Your task to perform on an android device: toggle notifications settings in the gmail app Image 0: 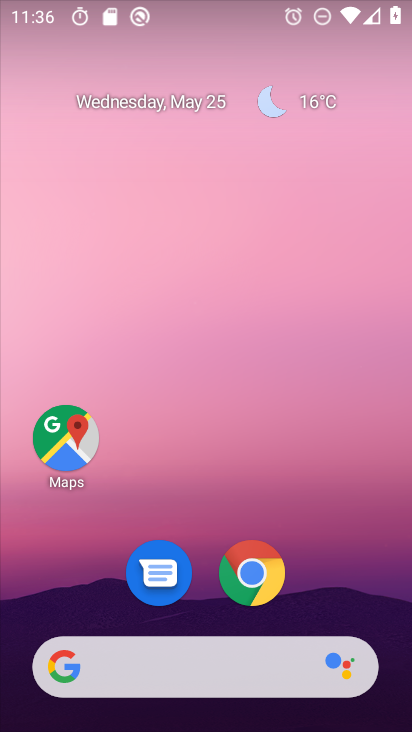
Step 0: drag from (342, 598) to (341, 6)
Your task to perform on an android device: toggle notifications settings in the gmail app Image 1: 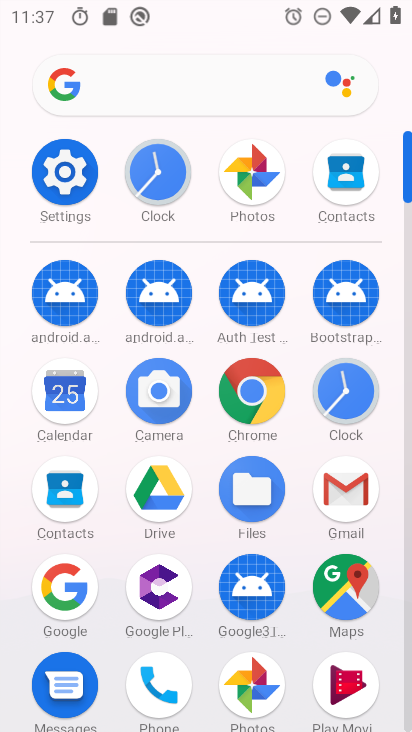
Step 1: click (342, 493)
Your task to perform on an android device: toggle notifications settings in the gmail app Image 2: 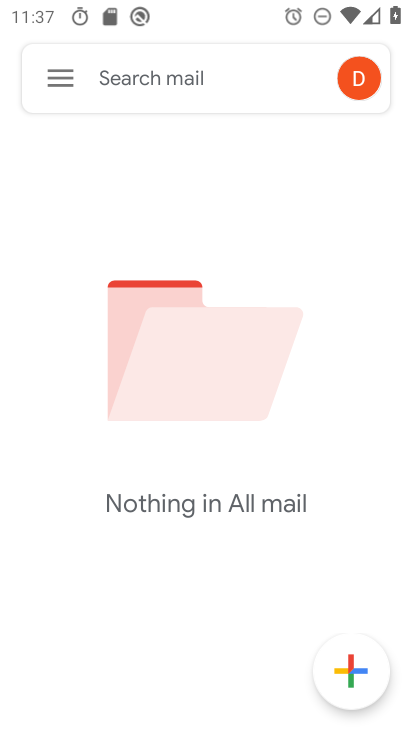
Step 2: click (56, 78)
Your task to perform on an android device: toggle notifications settings in the gmail app Image 3: 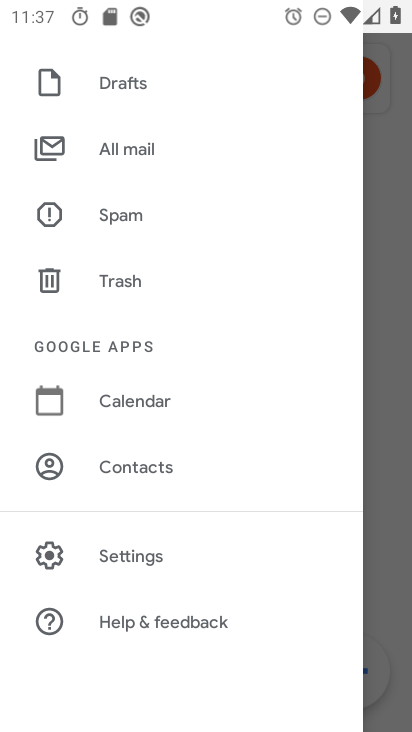
Step 3: click (122, 557)
Your task to perform on an android device: toggle notifications settings in the gmail app Image 4: 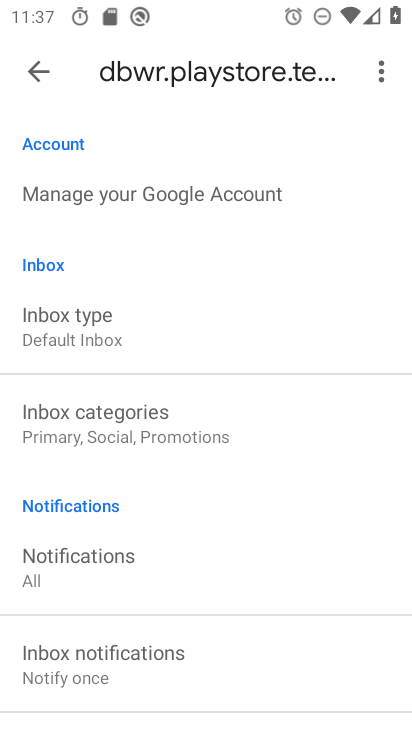
Step 4: click (27, 69)
Your task to perform on an android device: toggle notifications settings in the gmail app Image 5: 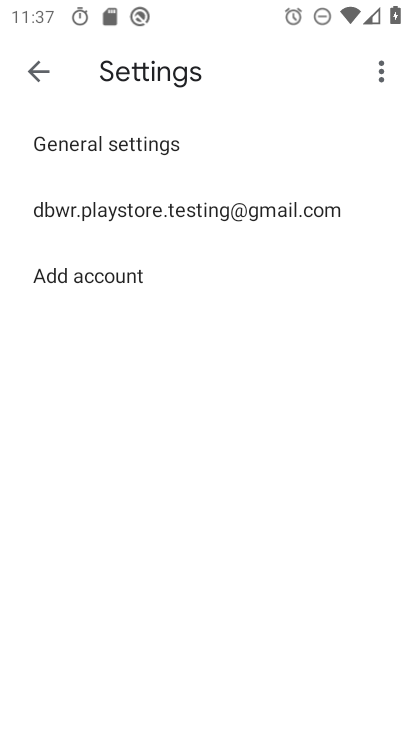
Step 5: click (106, 149)
Your task to perform on an android device: toggle notifications settings in the gmail app Image 6: 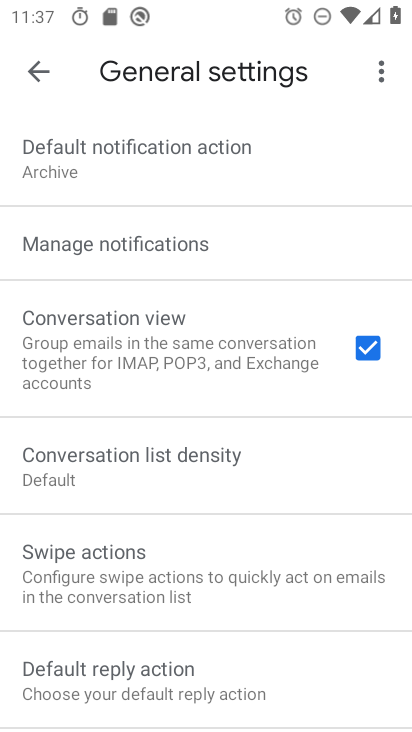
Step 6: click (84, 245)
Your task to perform on an android device: toggle notifications settings in the gmail app Image 7: 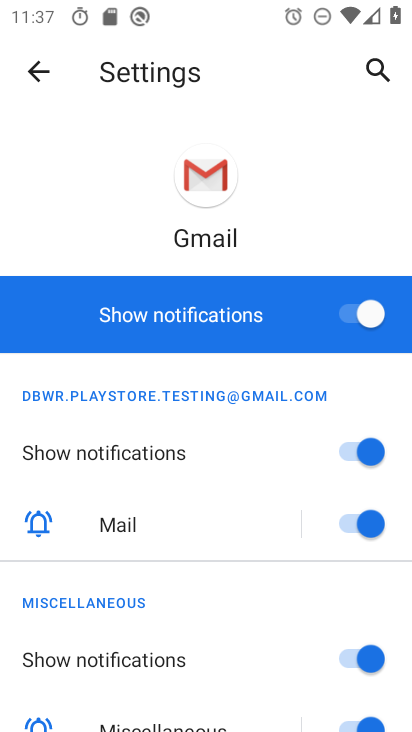
Step 7: click (368, 322)
Your task to perform on an android device: toggle notifications settings in the gmail app Image 8: 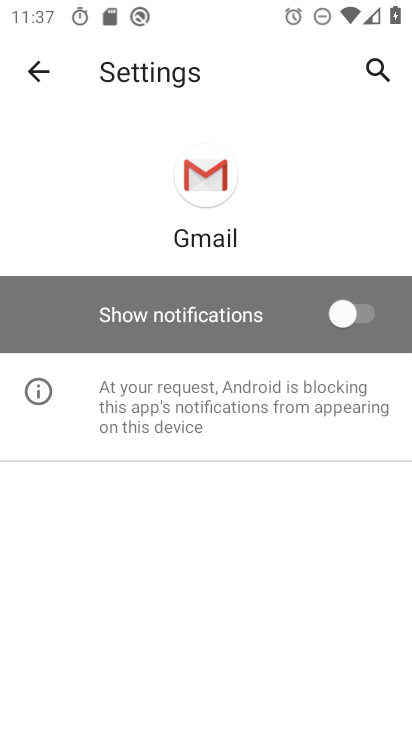
Step 8: task complete